Your task to perform on an android device: What's the weather going to be tomorrow? Image 0: 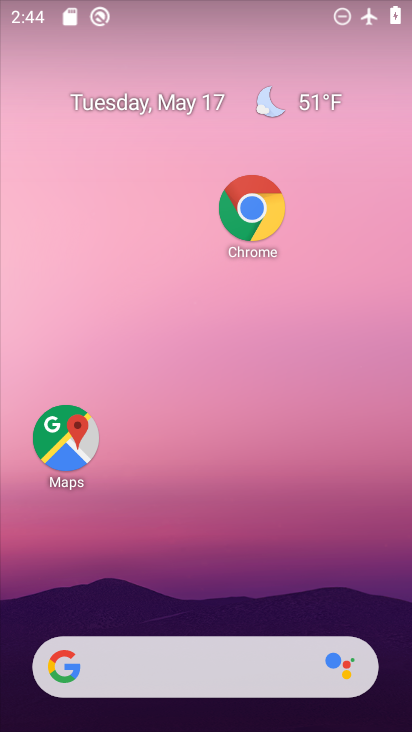
Step 0: click (201, 666)
Your task to perform on an android device: What's the weather going to be tomorrow? Image 1: 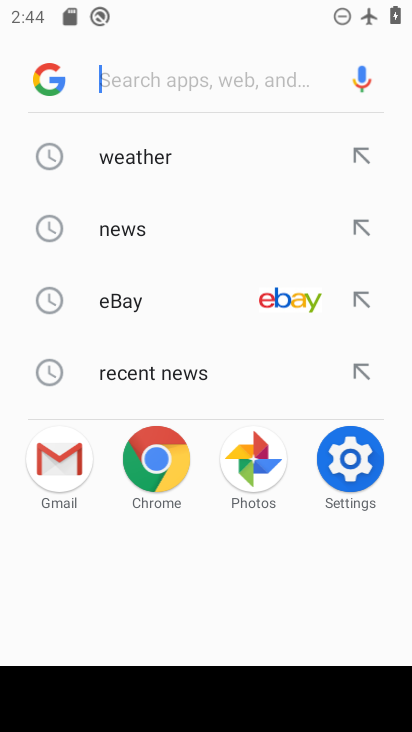
Step 1: click (99, 166)
Your task to perform on an android device: What's the weather going to be tomorrow? Image 2: 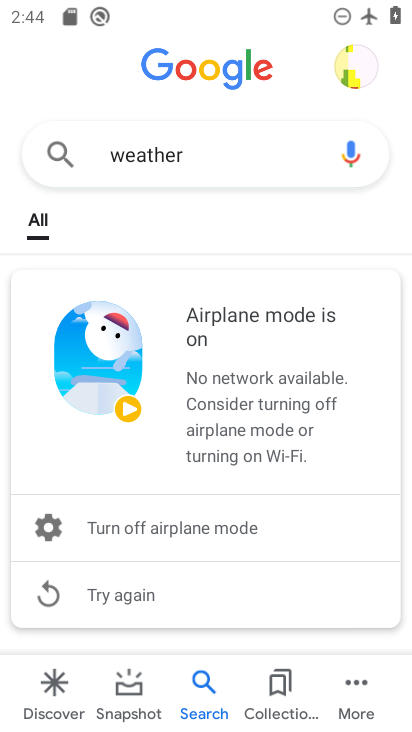
Step 2: task complete